Your task to perform on an android device: clear all cookies in the chrome app Image 0: 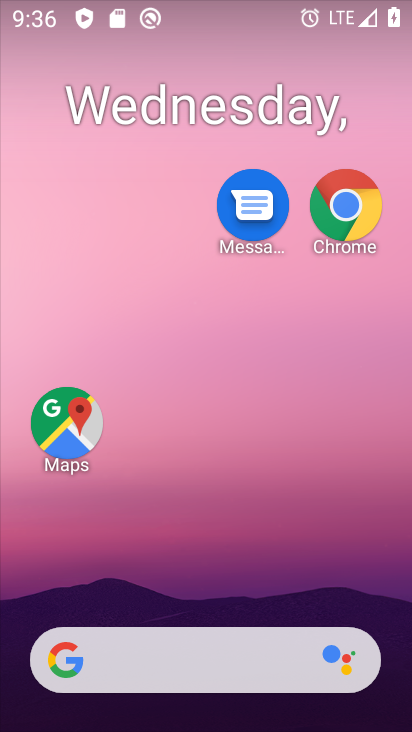
Step 0: drag from (252, 457) to (319, 120)
Your task to perform on an android device: clear all cookies in the chrome app Image 1: 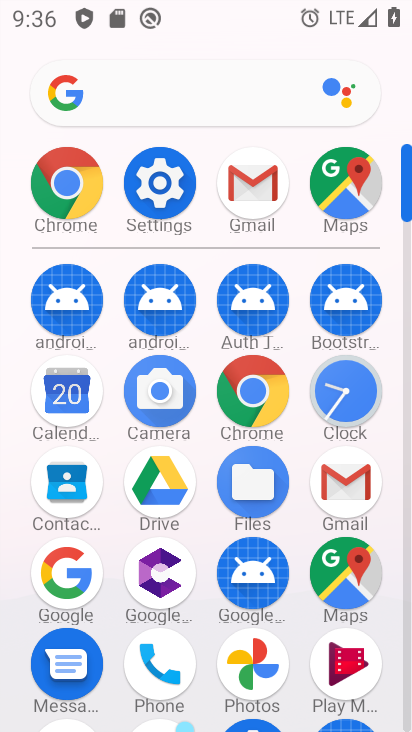
Step 1: click (255, 397)
Your task to perform on an android device: clear all cookies in the chrome app Image 2: 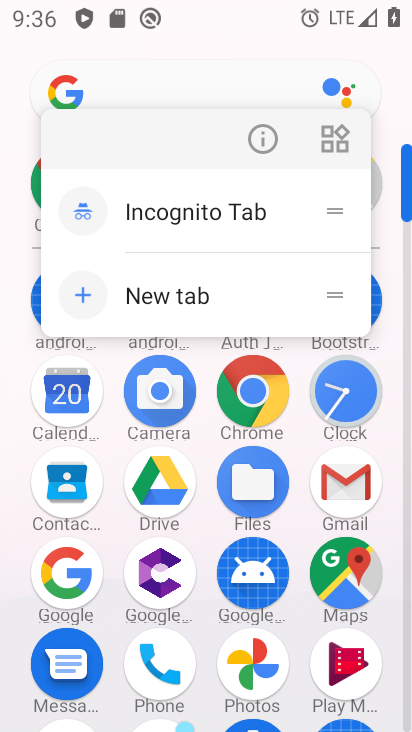
Step 2: click (261, 147)
Your task to perform on an android device: clear all cookies in the chrome app Image 3: 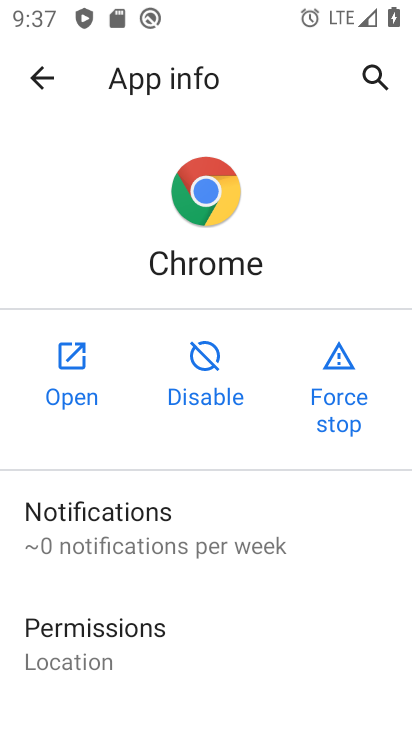
Step 3: click (67, 390)
Your task to perform on an android device: clear all cookies in the chrome app Image 4: 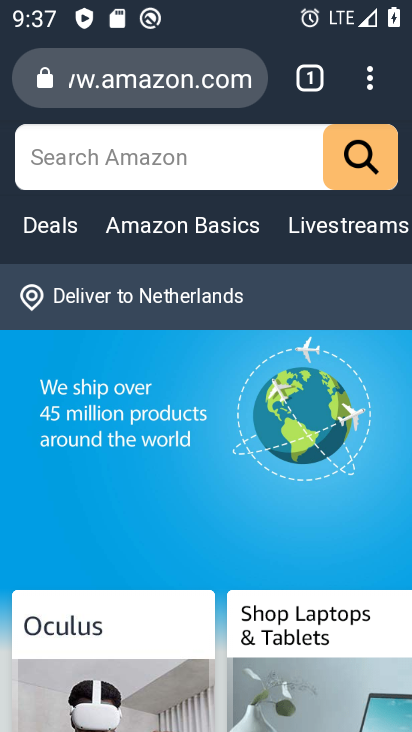
Step 4: drag from (377, 70) to (129, 152)
Your task to perform on an android device: clear all cookies in the chrome app Image 5: 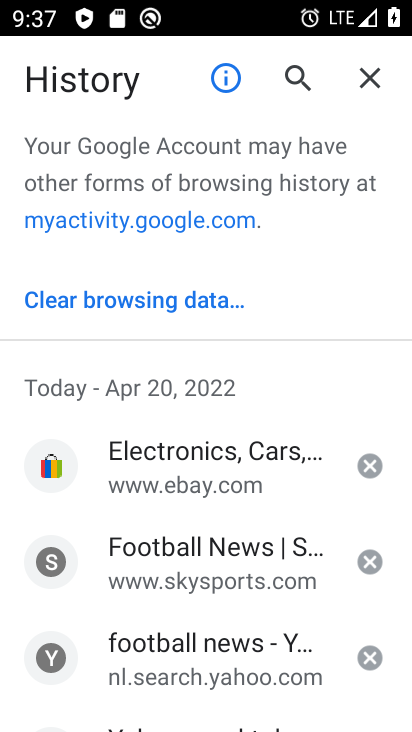
Step 5: click (107, 313)
Your task to perform on an android device: clear all cookies in the chrome app Image 6: 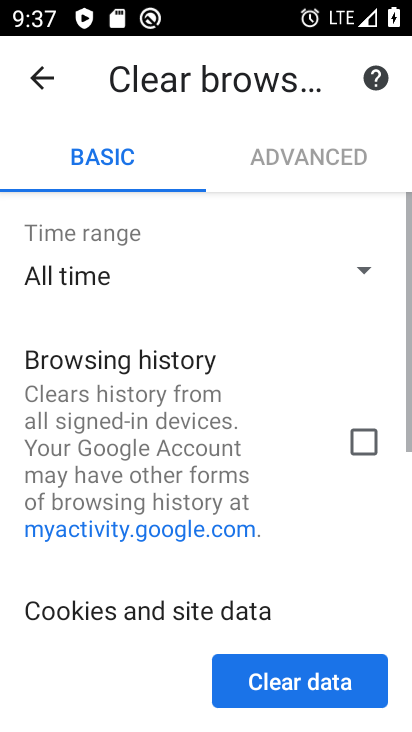
Step 6: click (316, 672)
Your task to perform on an android device: clear all cookies in the chrome app Image 7: 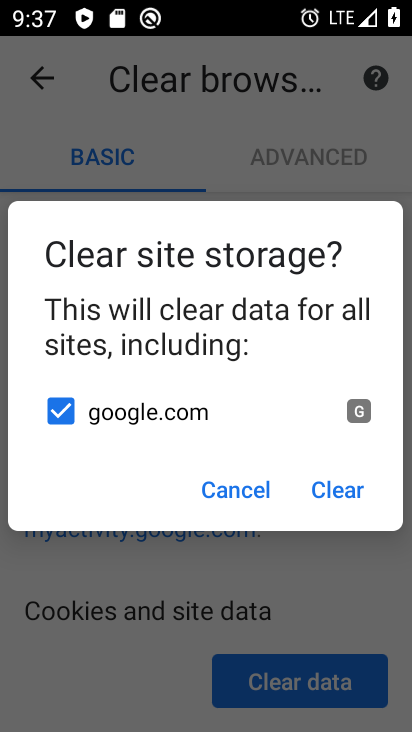
Step 7: click (237, 486)
Your task to perform on an android device: clear all cookies in the chrome app Image 8: 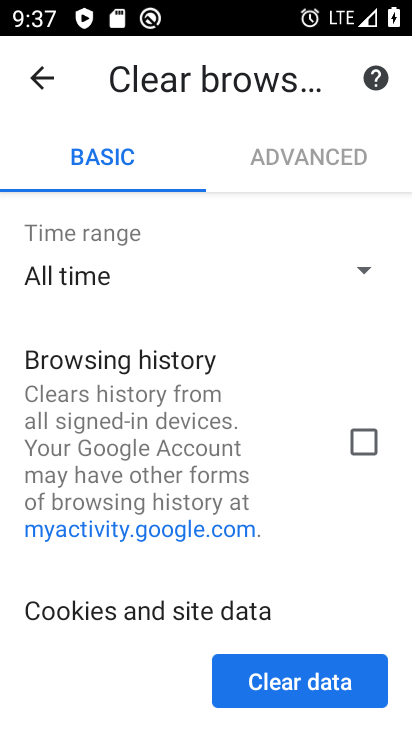
Step 8: drag from (356, 438) to (360, 151)
Your task to perform on an android device: clear all cookies in the chrome app Image 9: 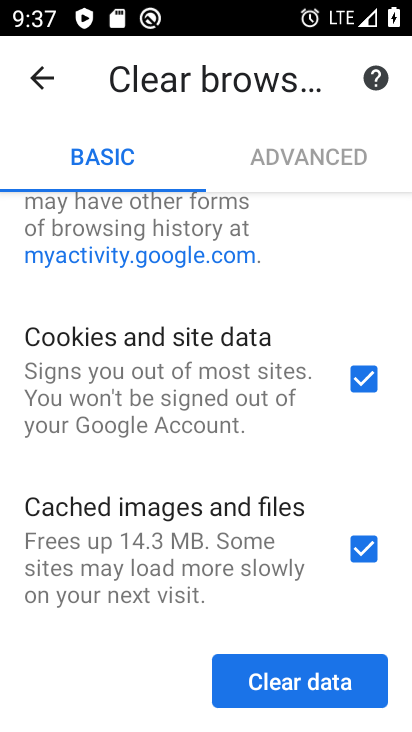
Step 9: click (352, 542)
Your task to perform on an android device: clear all cookies in the chrome app Image 10: 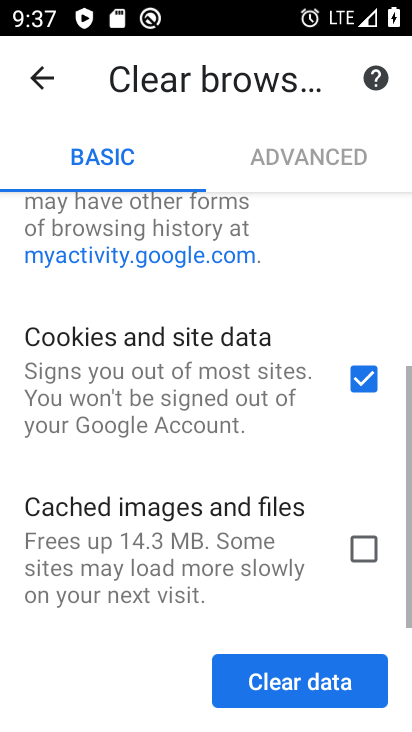
Step 10: click (288, 714)
Your task to perform on an android device: clear all cookies in the chrome app Image 11: 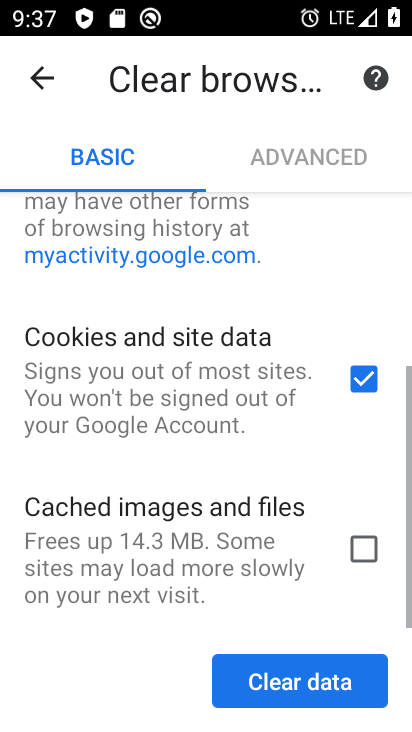
Step 11: click (291, 680)
Your task to perform on an android device: clear all cookies in the chrome app Image 12: 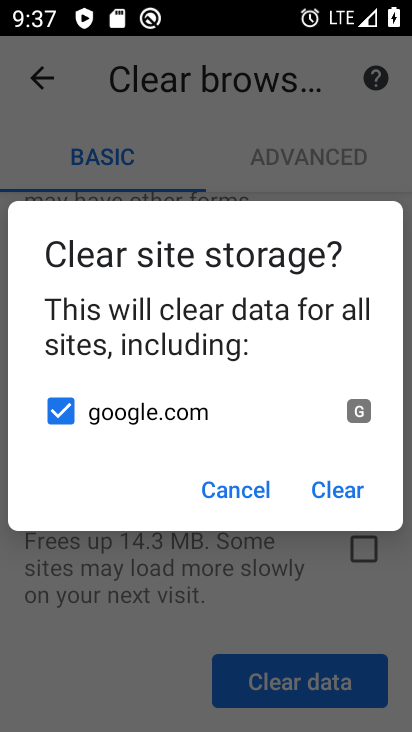
Step 12: click (346, 488)
Your task to perform on an android device: clear all cookies in the chrome app Image 13: 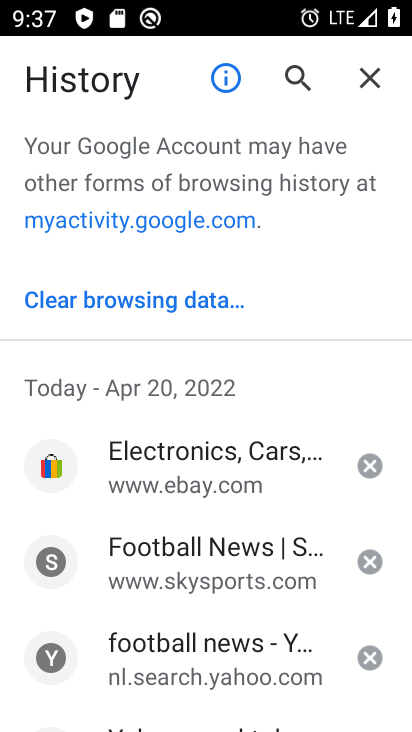
Step 13: task complete